Your task to perform on an android device: change notifications settings Image 0: 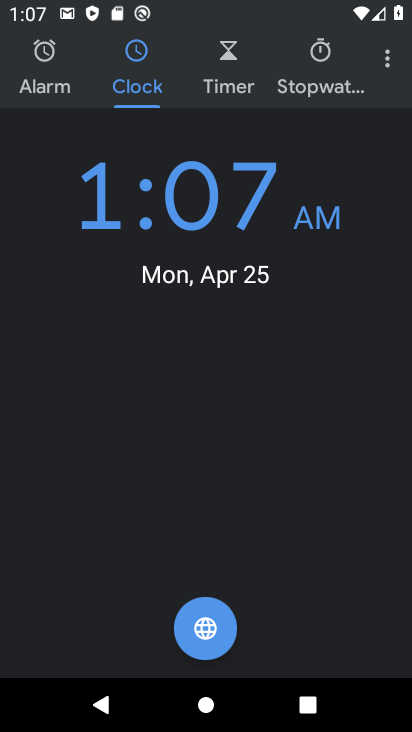
Step 0: press home button
Your task to perform on an android device: change notifications settings Image 1: 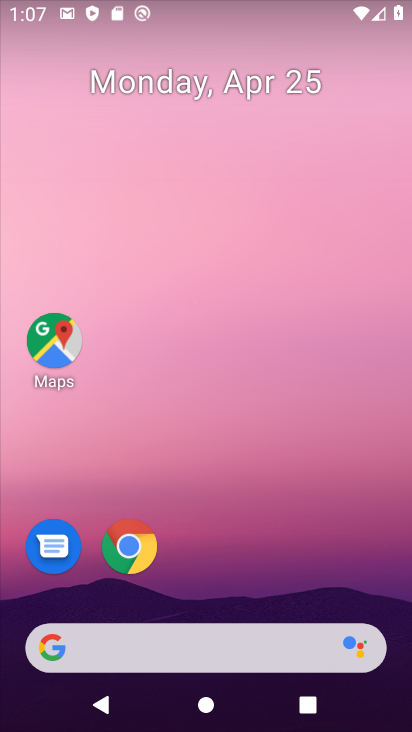
Step 1: drag from (357, 583) to (360, 89)
Your task to perform on an android device: change notifications settings Image 2: 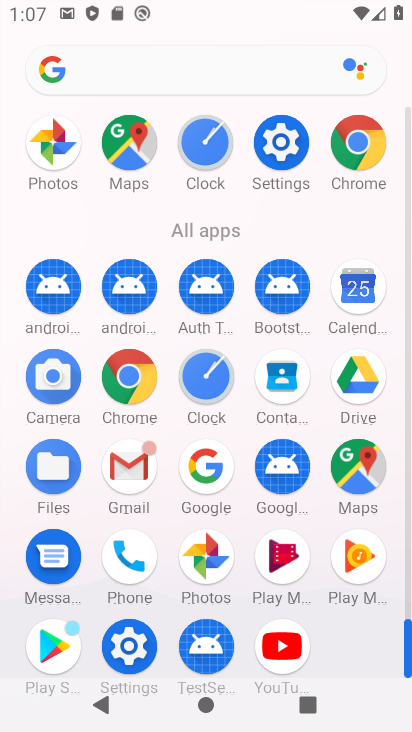
Step 2: click (287, 159)
Your task to perform on an android device: change notifications settings Image 3: 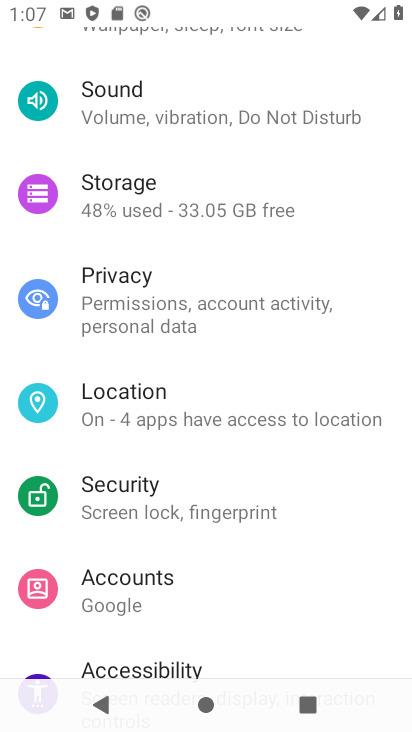
Step 3: drag from (345, 201) to (364, 505)
Your task to perform on an android device: change notifications settings Image 4: 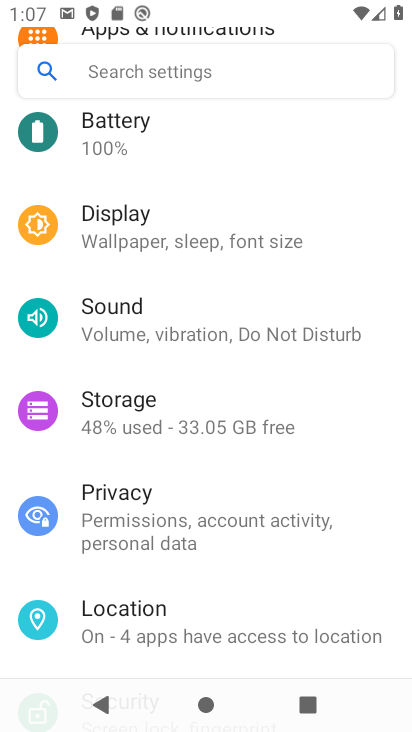
Step 4: drag from (367, 241) to (363, 473)
Your task to perform on an android device: change notifications settings Image 5: 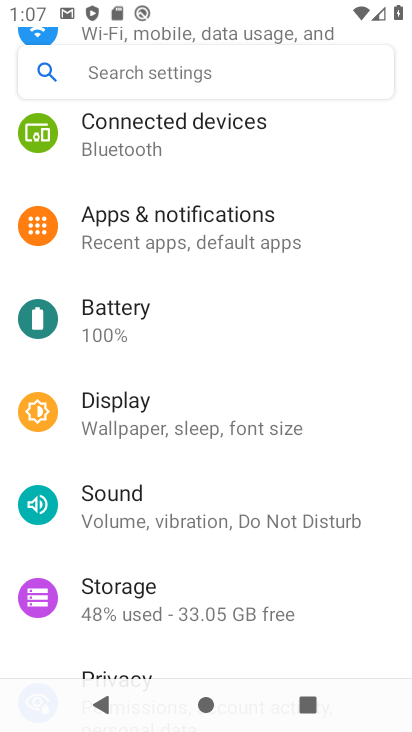
Step 5: drag from (360, 324) to (352, 450)
Your task to perform on an android device: change notifications settings Image 6: 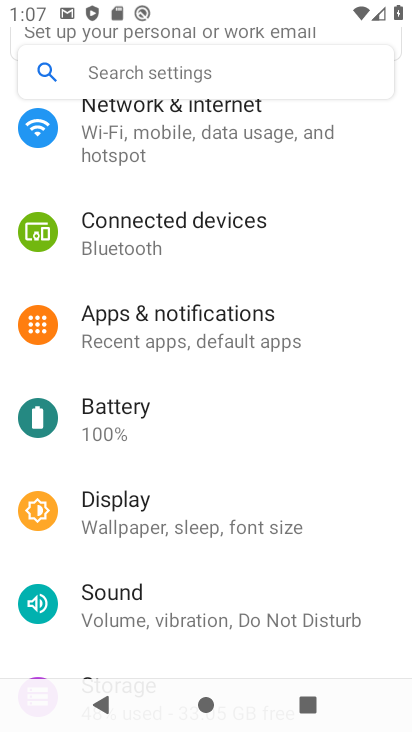
Step 6: drag from (348, 228) to (341, 414)
Your task to perform on an android device: change notifications settings Image 7: 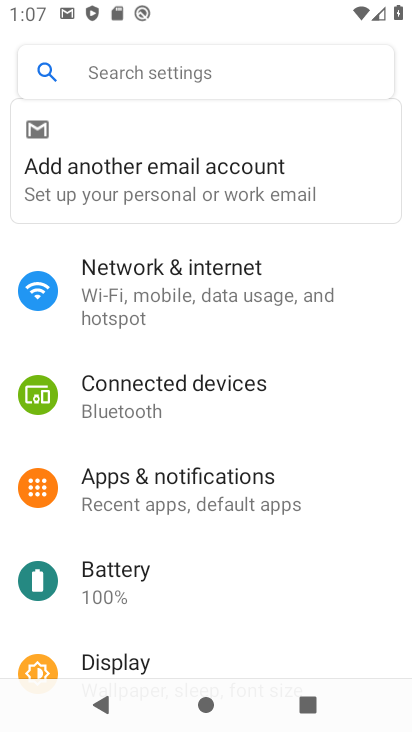
Step 7: click (275, 487)
Your task to perform on an android device: change notifications settings Image 8: 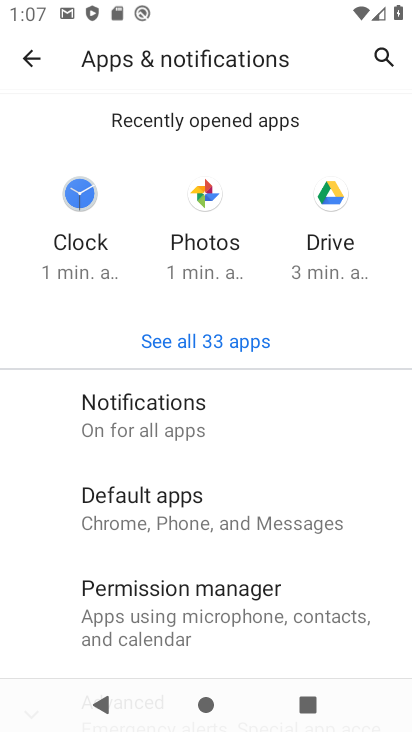
Step 8: drag from (330, 411) to (330, 354)
Your task to perform on an android device: change notifications settings Image 9: 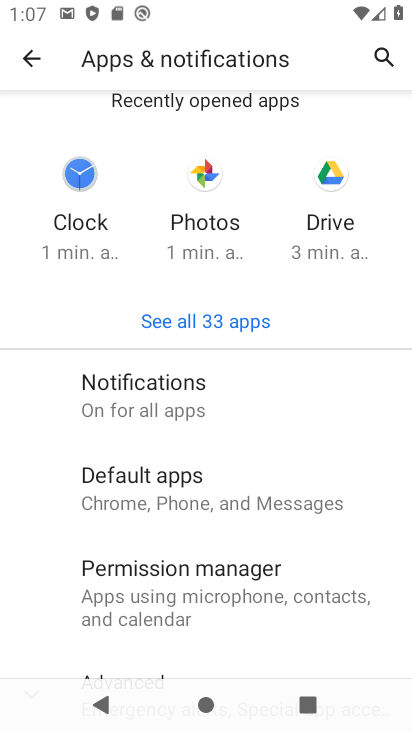
Step 9: click (213, 382)
Your task to perform on an android device: change notifications settings Image 10: 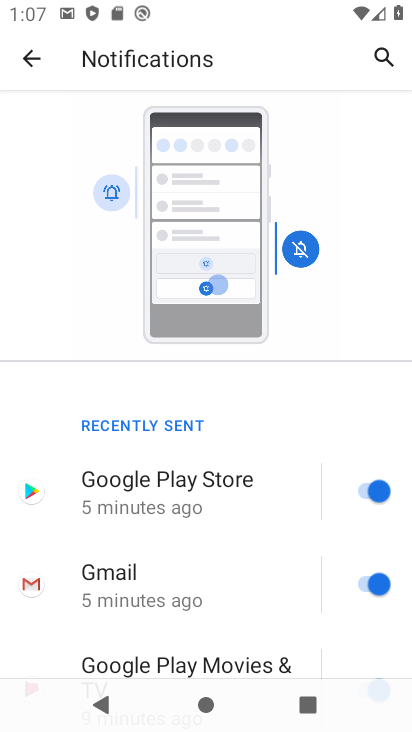
Step 10: drag from (284, 543) to (287, 364)
Your task to perform on an android device: change notifications settings Image 11: 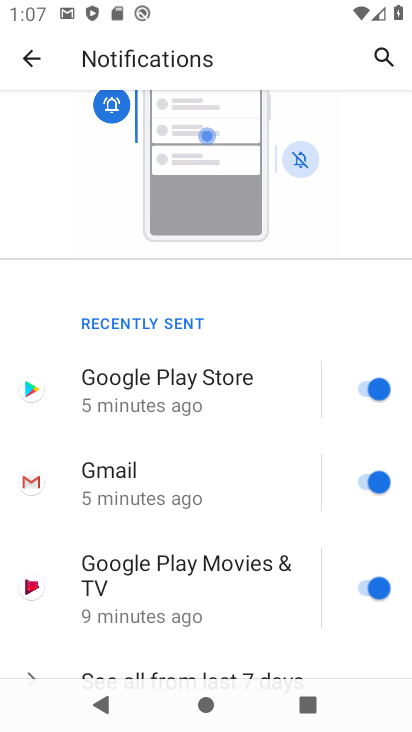
Step 11: click (356, 388)
Your task to perform on an android device: change notifications settings Image 12: 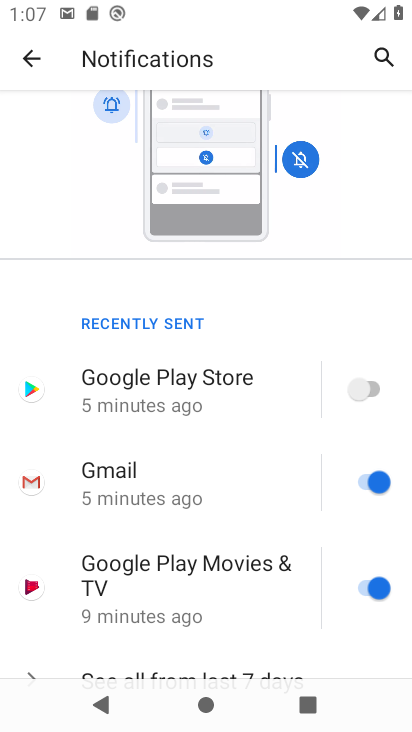
Step 12: click (381, 478)
Your task to perform on an android device: change notifications settings Image 13: 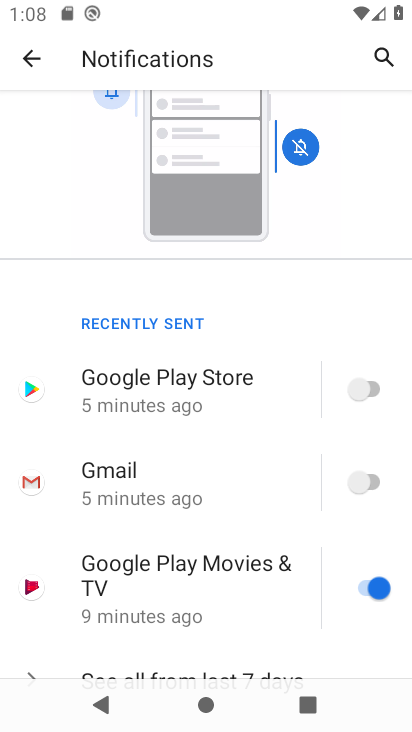
Step 13: click (369, 594)
Your task to perform on an android device: change notifications settings Image 14: 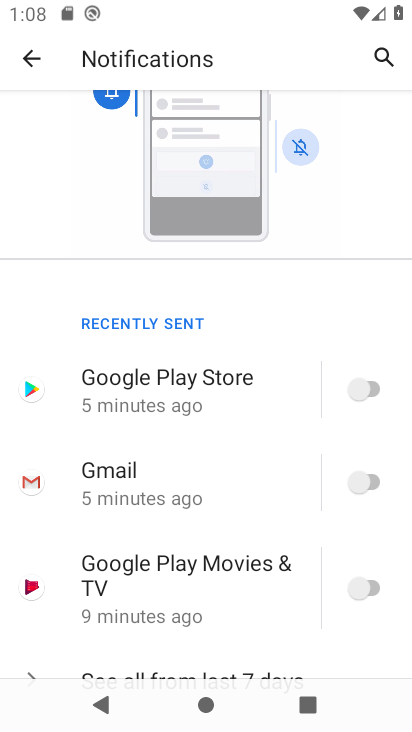
Step 14: task complete